Your task to perform on an android device: check battery use Image 0: 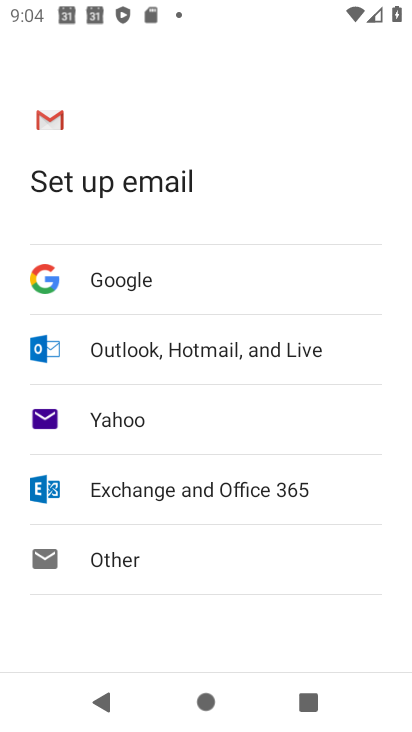
Step 0: press home button
Your task to perform on an android device: check battery use Image 1: 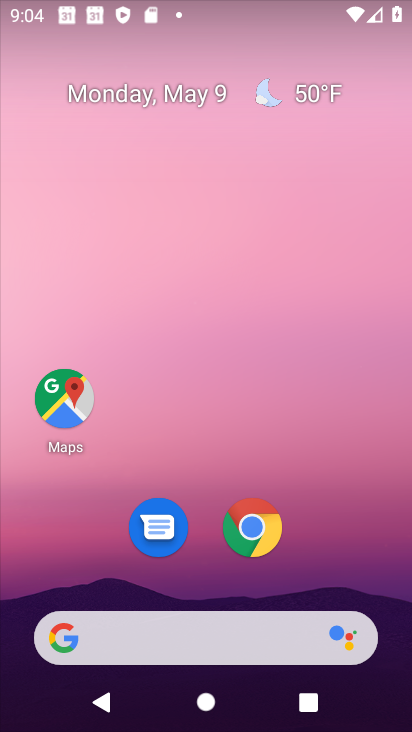
Step 1: drag from (255, 583) to (299, 88)
Your task to perform on an android device: check battery use Image 2: 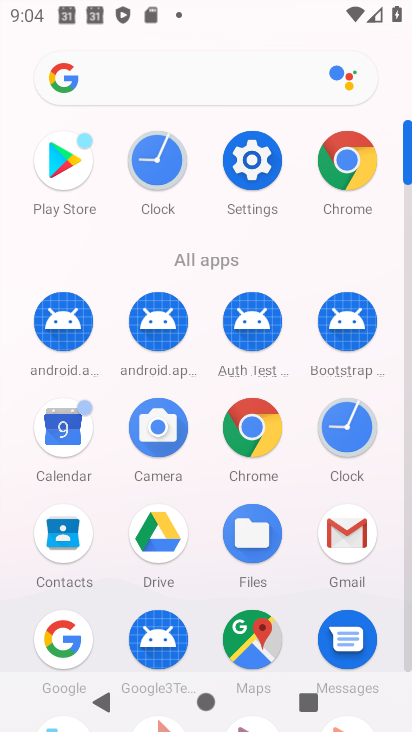
Step 2: click (256, 177)
Your task to perform on an android device: check battery use Image 3: 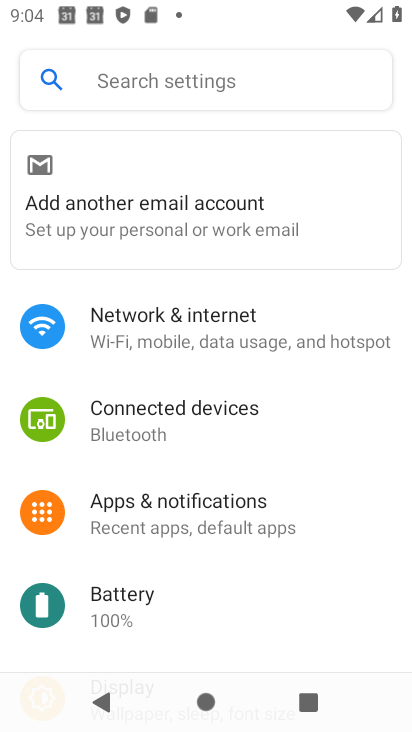
Step 3: click (156, 611)
Your task to perform on an android device: check battery use Image 4: 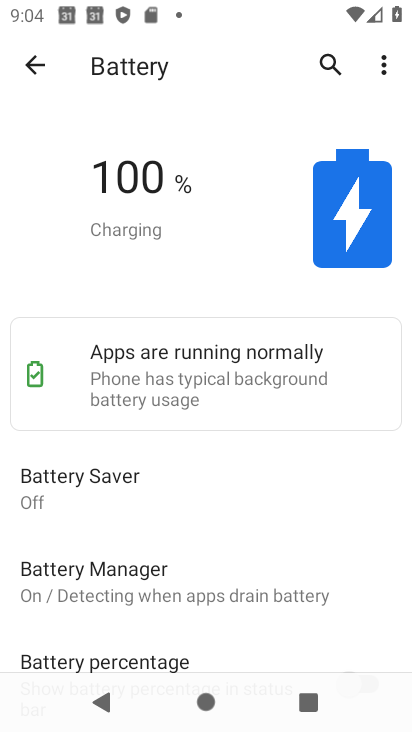
Step 4: click (393, 76)
Your task to perform on an android device: check battery use Image 5: 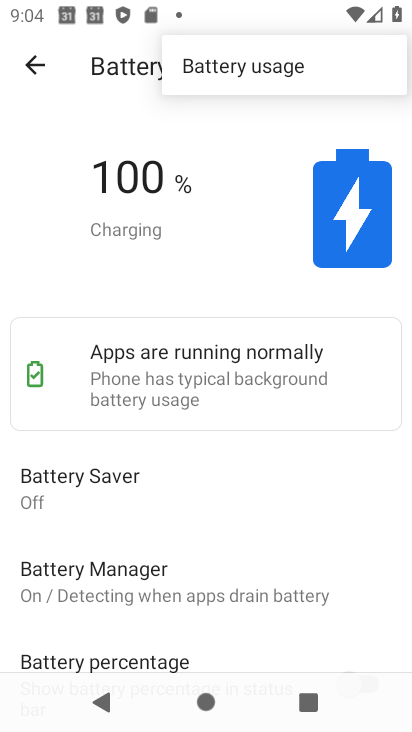
Step 5: click (301, 79)
Your task to perform on an android device: check battery use Image 6: 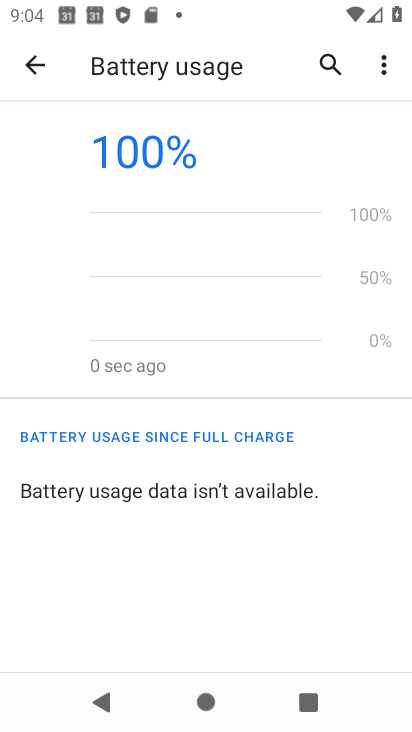
Step 6: task complete